Your task to perform on an android device: all mails in gmail Image 0: 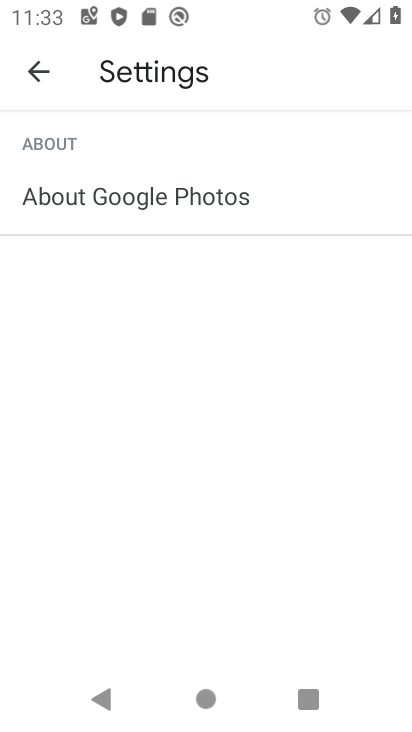
Step 0: press home button
Your task to perform on an android device: all mails in gmail Image 1: 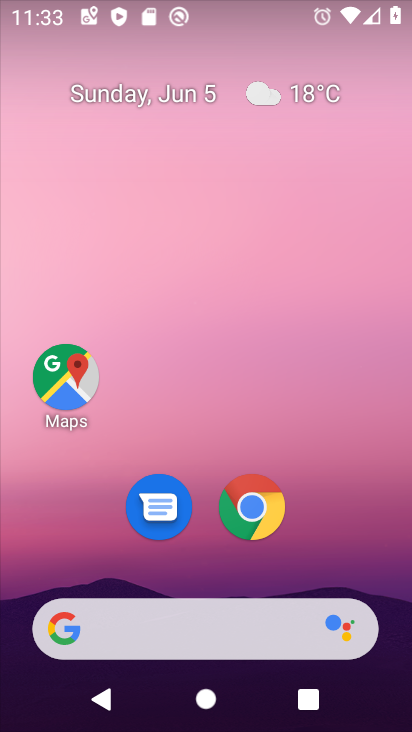
Step 1: drag from (234, 730) to (234, 41)
Your task to perform on an android device: all mails in gmail Image 2: 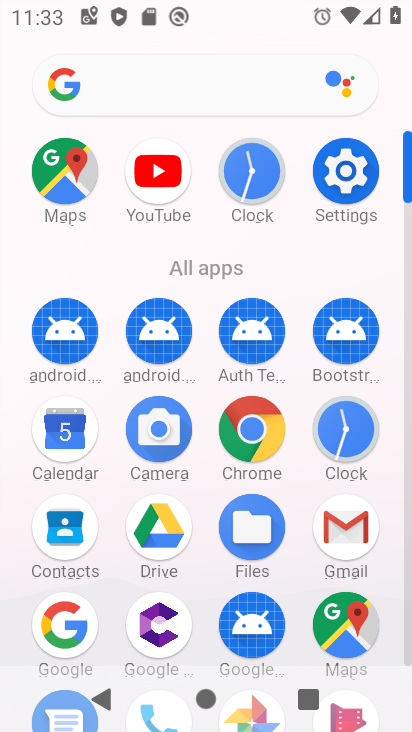
Step 2: click (339, 524)
Your task to perform on an android device: all mails in gmail Image 3: 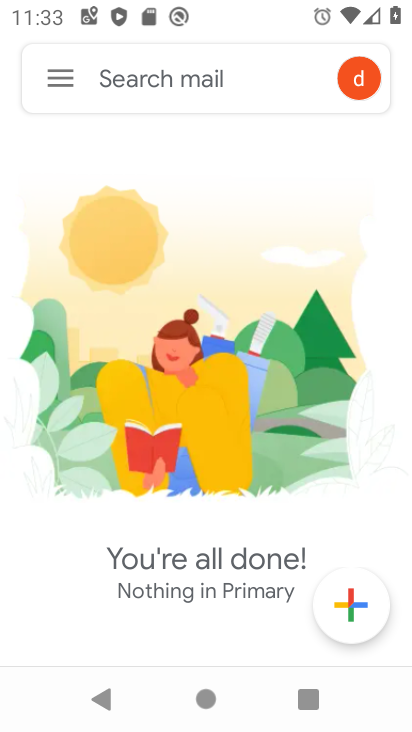
Step 3: click (57, 77)
Your task to perform on an android device: all mails in gmail Image 4: 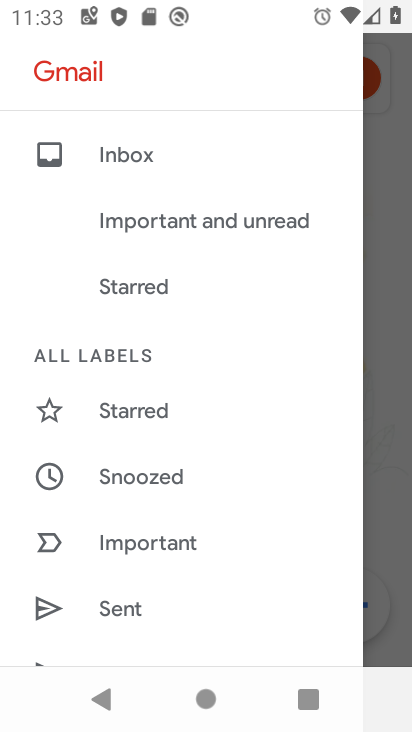
Step 4: drag from (135, 615) to (115, 258)
Your task to perform on an android device: all mails in gmail Image 5: 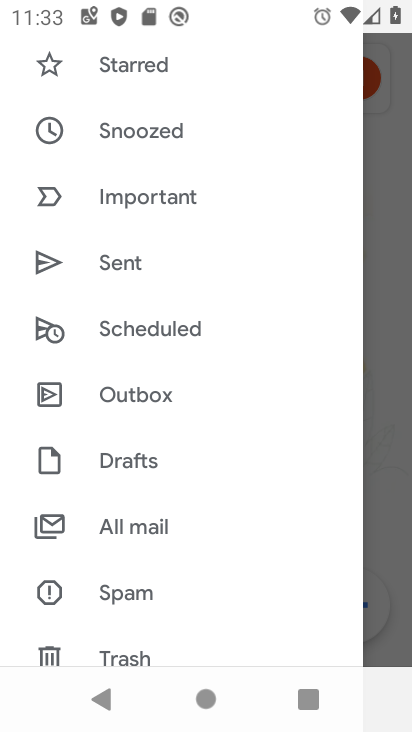
Step 5: click (145, 525)
Your task to perform on an android device: all mails in gmail Image 6: 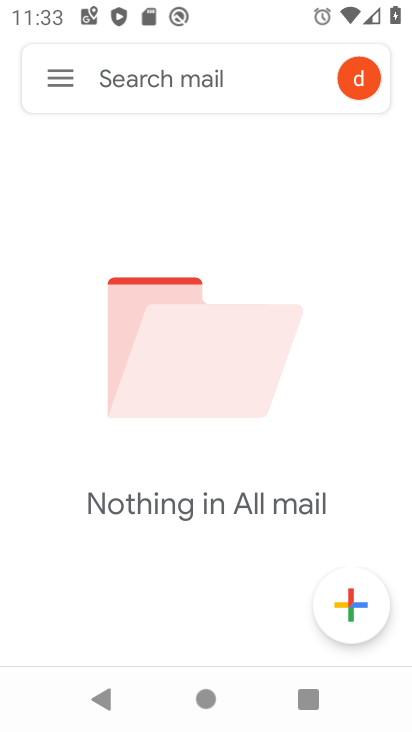
Step 6: task complete